Your task to perform on an android device: toggle show notifications on the lock screen Image 0: 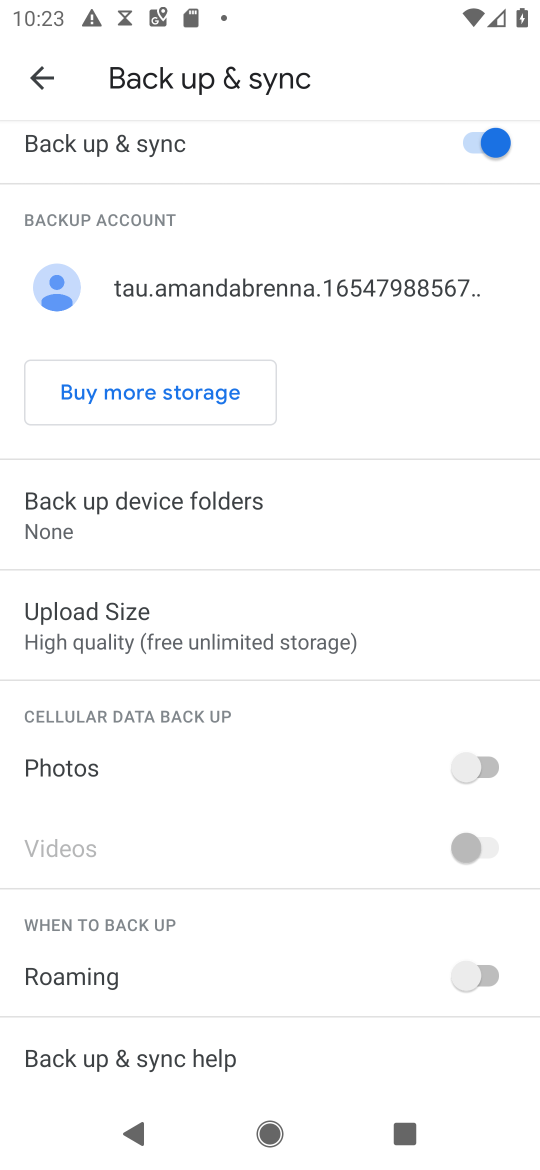
Step 0: press home button
Your task to perform on an android device: toggle show notifications on the lock screen Image 1: 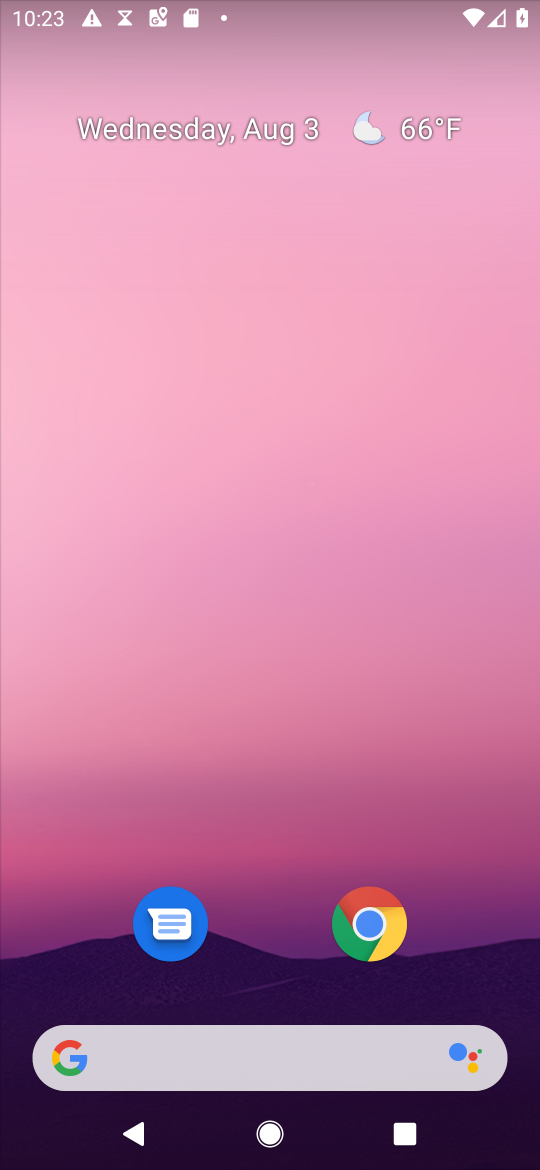
Step 1: drag from (277, 981) to (285, 30)
Your task to perform on an android device: toggle show notifications on the lock screen Image 2: 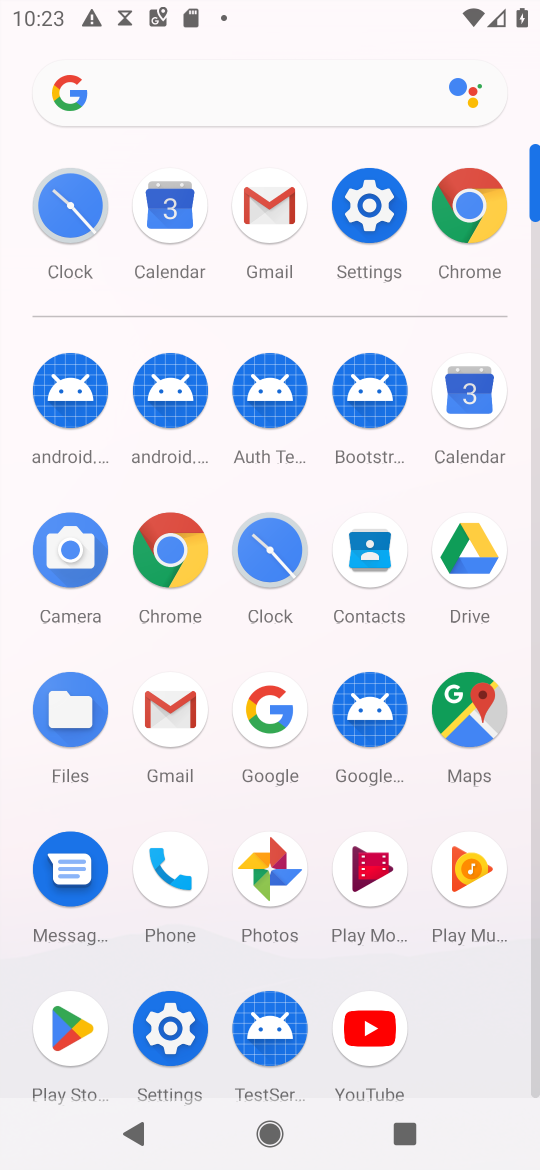
Step 2: click (364, 199)
Your task to perform on an android device: toggle show notifications on the lock screen Image 3: 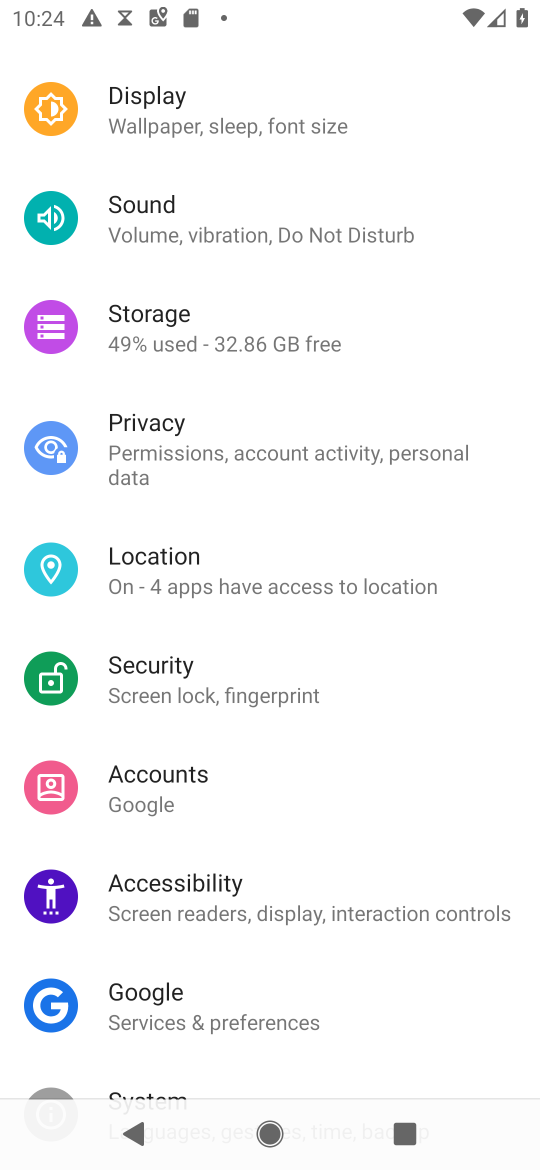
Step 3: drag from (208, 181) to (252, 859)
Your task to perform on an android device: toggle show notifications on the lock screen Image 4: 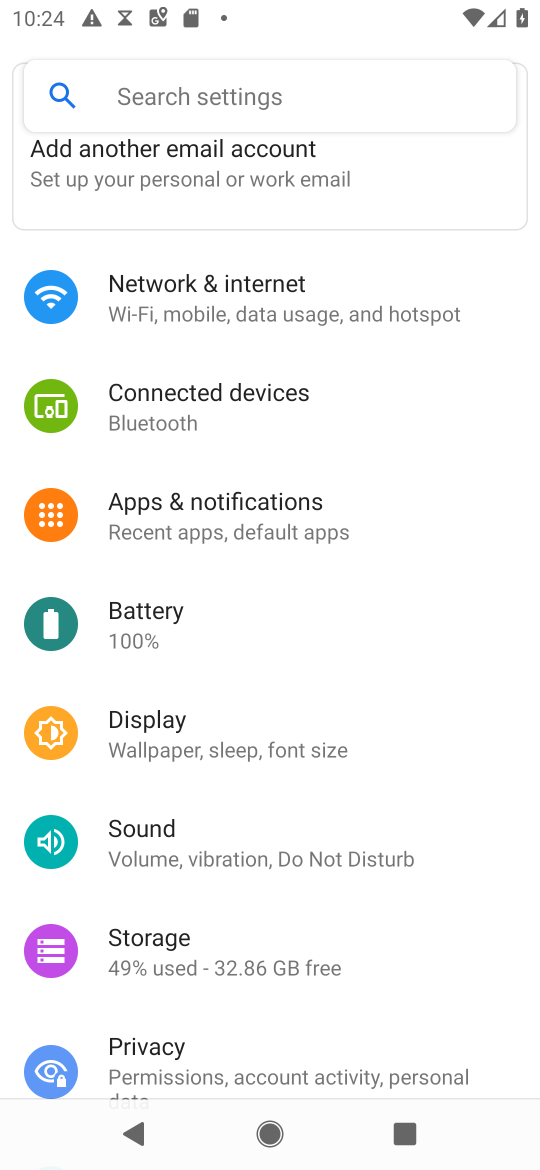
Step 4: click (335, 515)
Your task to perform on an android device: toggle show notifications on the lock screen Image 5: 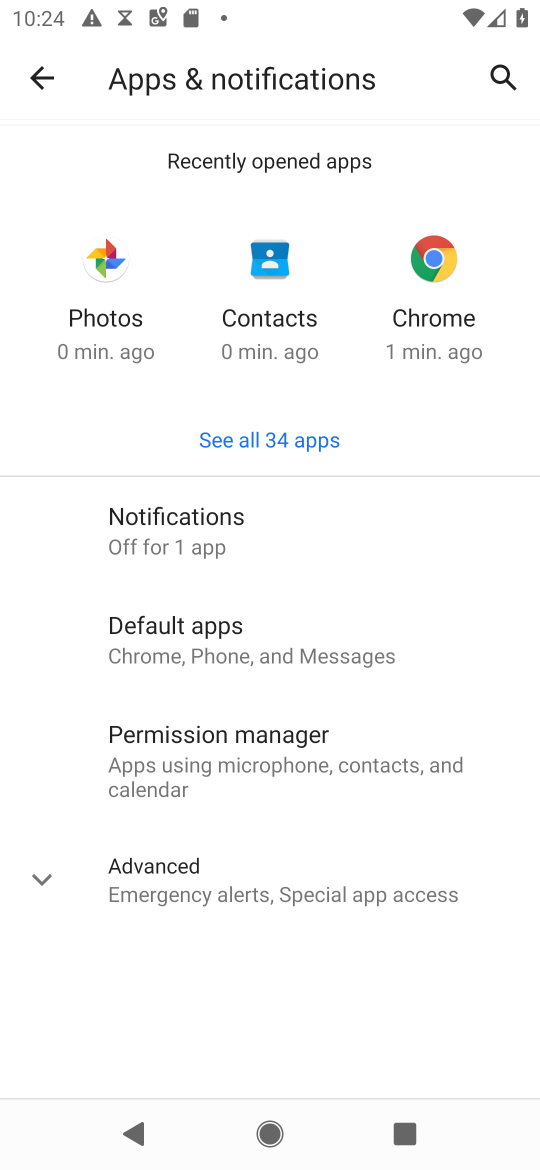
Step 5: click (267, 528)
Your task to perform on an android device: toggle show notifications on the lock screen Image 6: 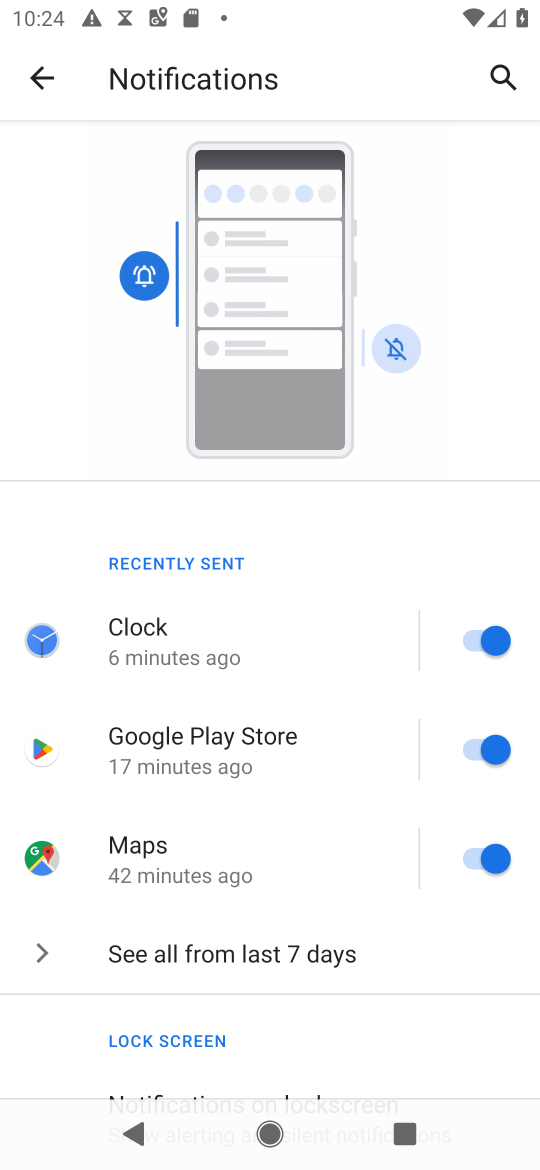
Step 6: drag from (277, 1017) to (291, 419)
Your task to perform on an android device: toggle show notifications on the lock screen Image 7: 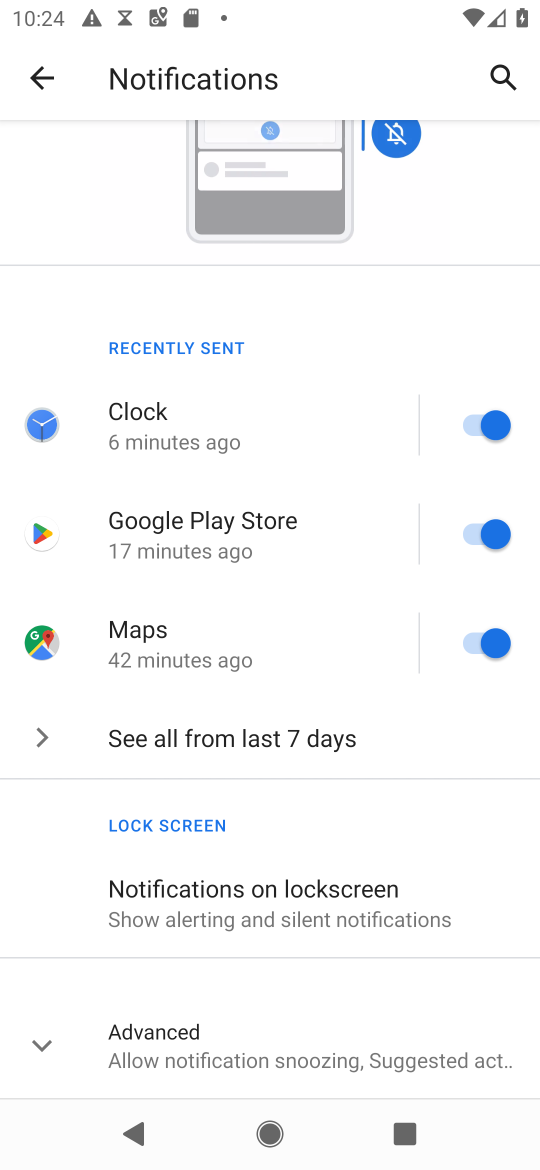
Step 7: click (78, 902)
Your task to perform on an android device: toggle show notifications on the lock screen Image 8: 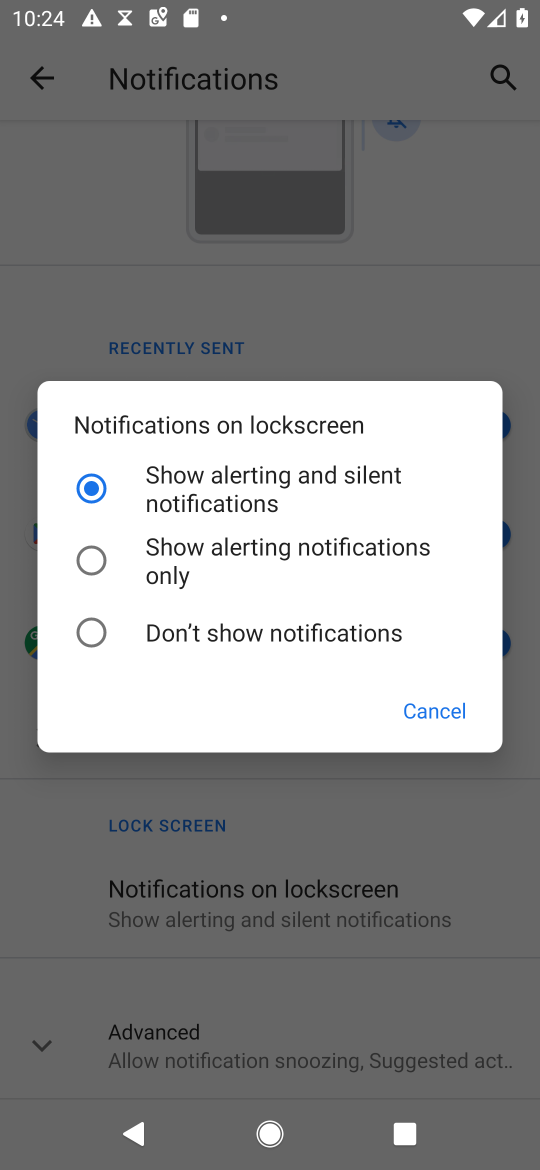
Step 8: click (91, 558)
Your task to perform on an android device: toggle show notifications on the lock screen Image 9: 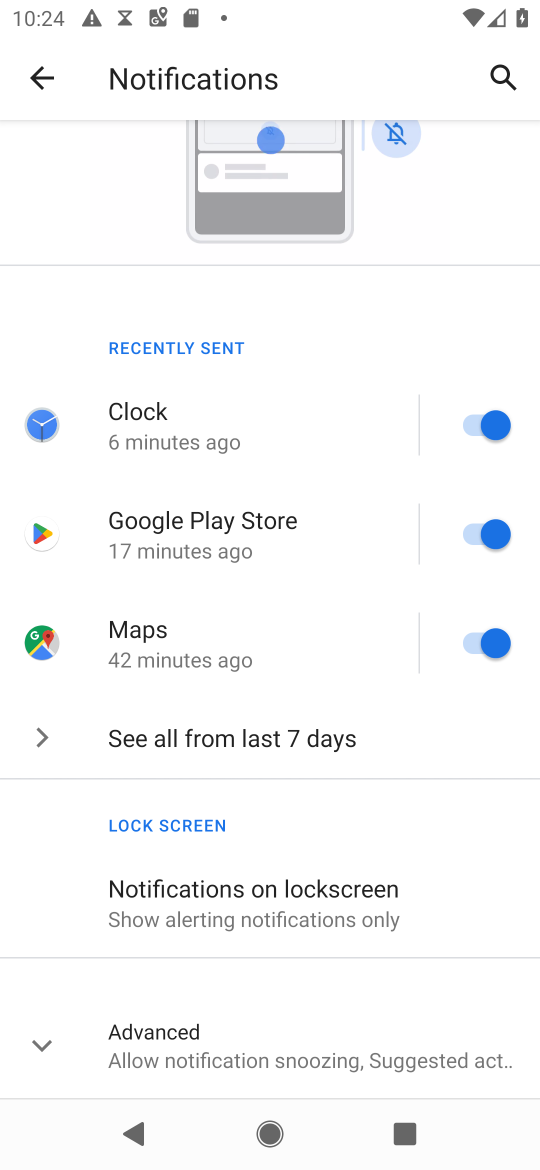
Step 9: task complete